Your task to perform on an android device: turn on notifications settings in the gmail app Image 0: 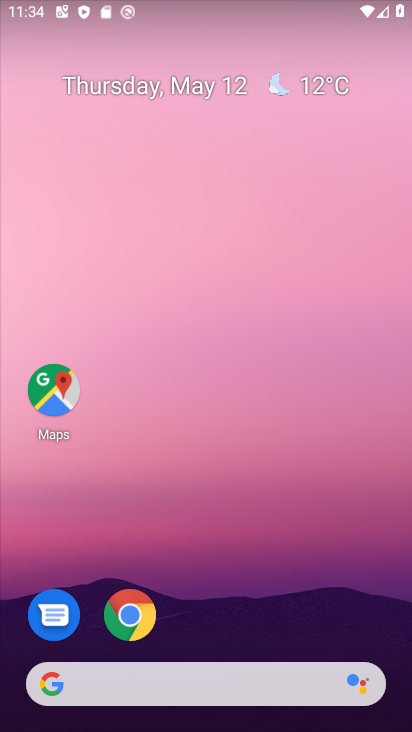
Step 0: drag from (211, 635) to (227, 237)
Your task to perform on an android device: turn on notifications settings in the gmail app Image 1: 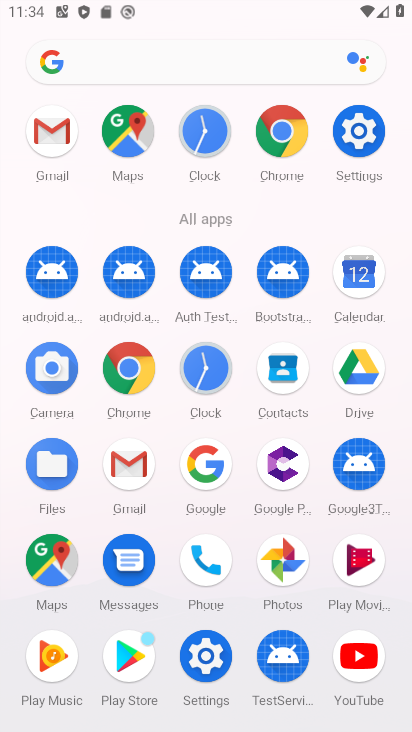
Step 1: click (68, 134)
Your task to perform on an android device: turn on notifications settings in the gmail app Image 2: 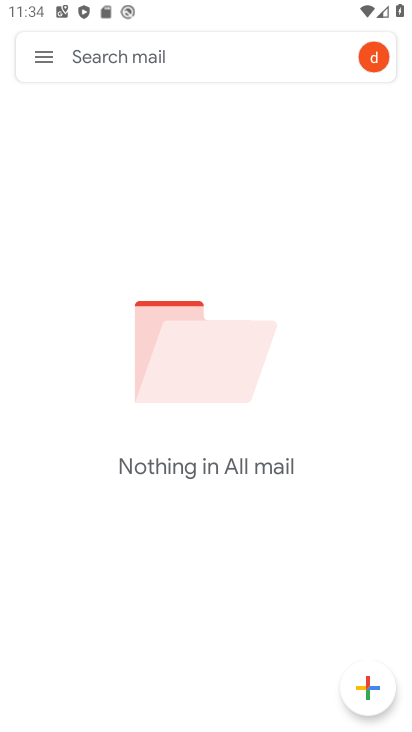
Step 2: click (49, 60)
Your task to perform on an android device: turn on notifications settings in the gmail app Image 3: 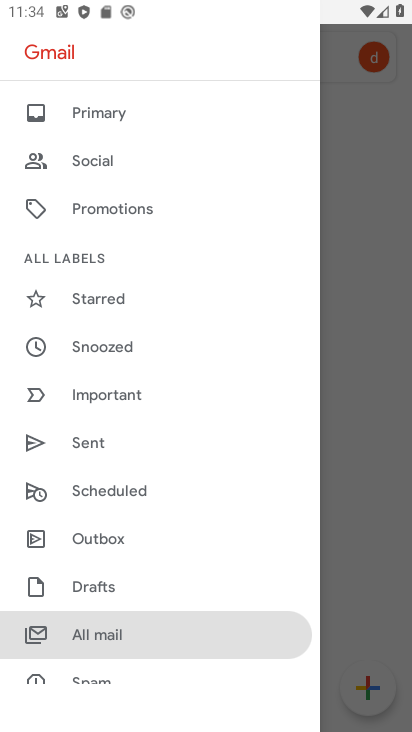
Step 3: drag from (132, 605) to (151, 355)
Your task to perform on an android device: turn on notifications settings in the gmail app Image 4: 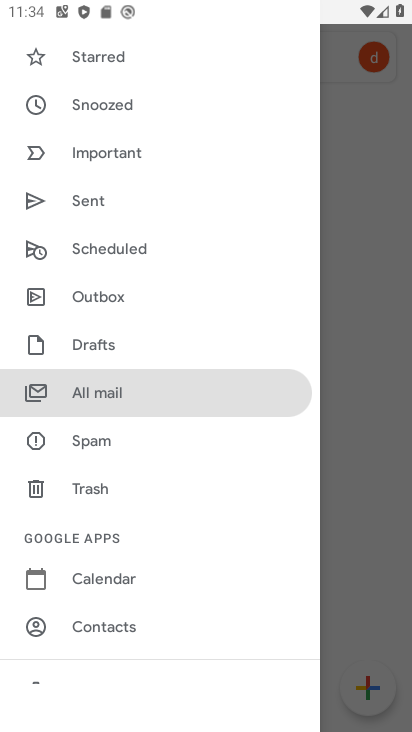
Step 4: drag from (112, 609) to (114, 390)
Your task to perform on an android device: turn on notifications settings in the gmail app Image 5: 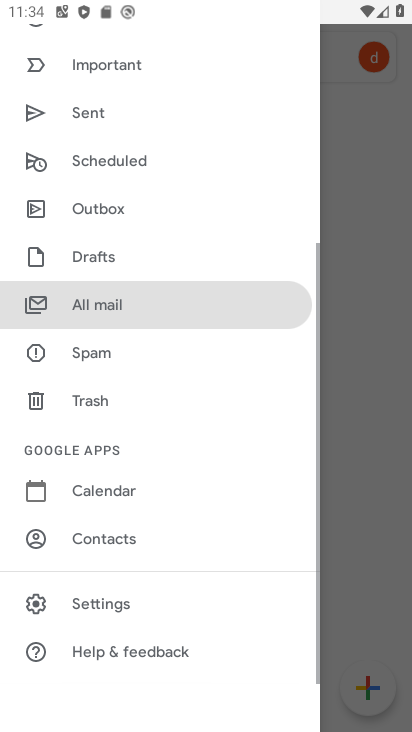
Step 5: click (85, 596)
Your task to perform on an android device: turn on notifications settings in the gmail app Image 6: 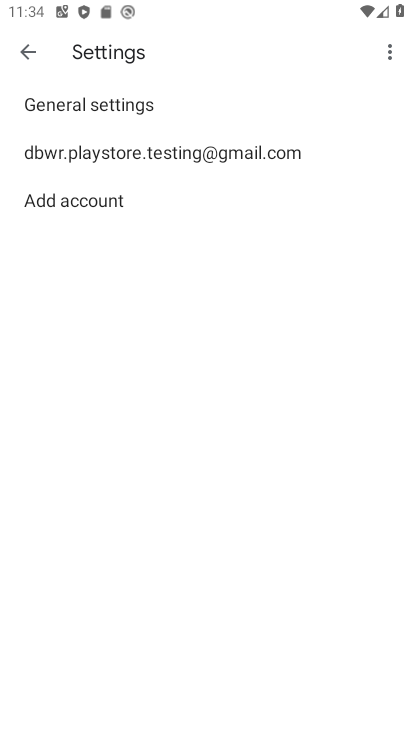
Step 6: click (172, 148)
Your task to perform on an android device: turn on notifications settings in the gmail app Image 7: 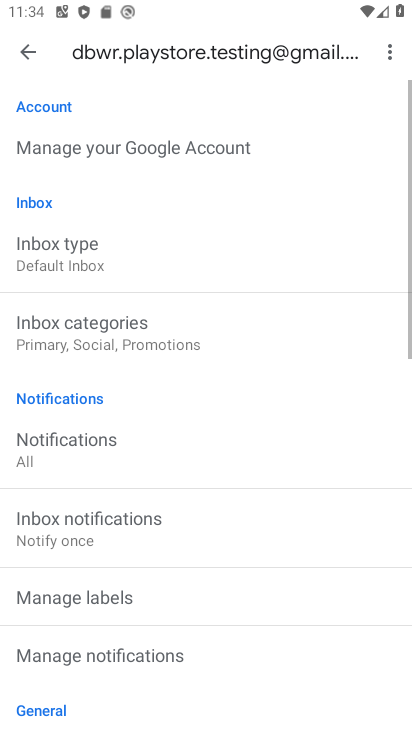
Step 7: drag from (166, 557) to (178, 395)
Your task to perform on an android device: turn on notifications settings in the gmail app Image 8: 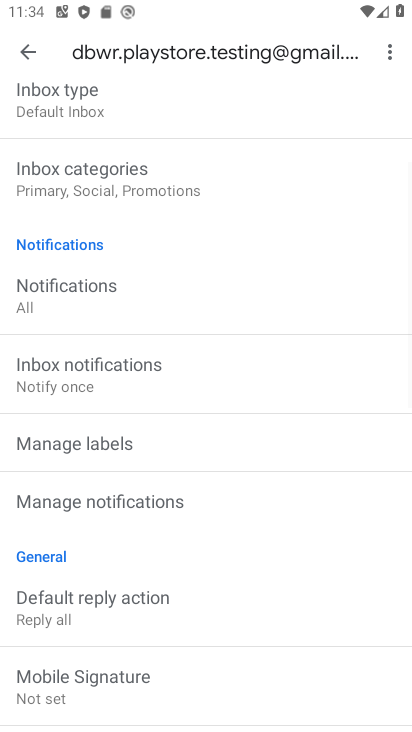
Step 8: click (170, 494)
Your task to perform on an android device: turn on notifications settings in the gmail app Image 9: 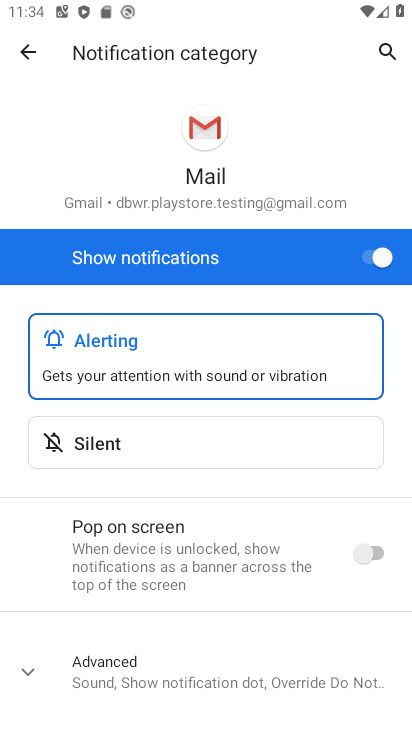
Step 9: task complete